Your task to perform on an android device: change notification settings in the gmail app Image 0: 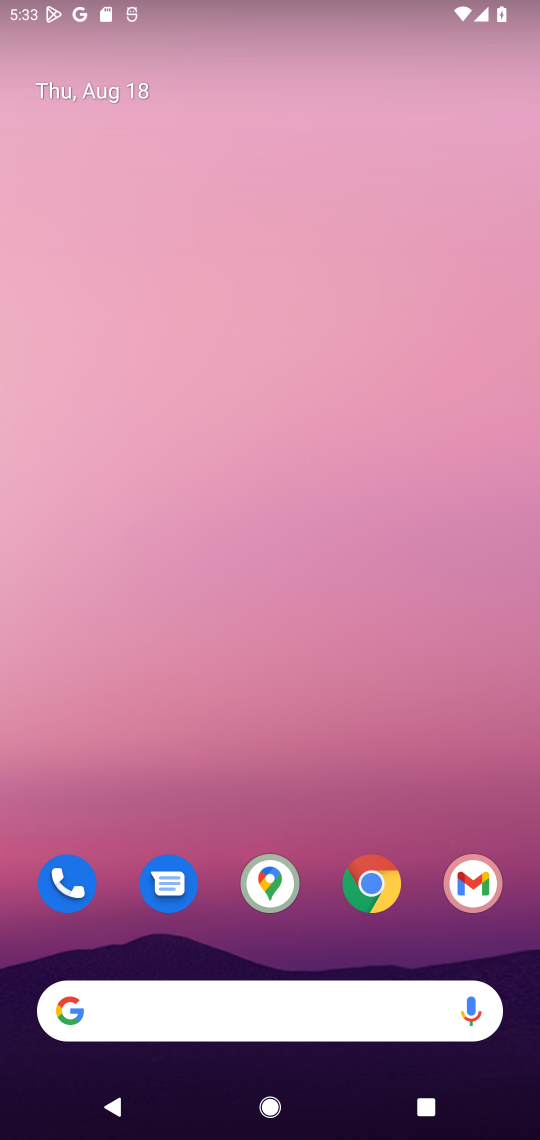
Step 0: drag from (335, 929) to (512, 684)
Your task to perform on an android device: change notification settings in the gmail app Image 1: 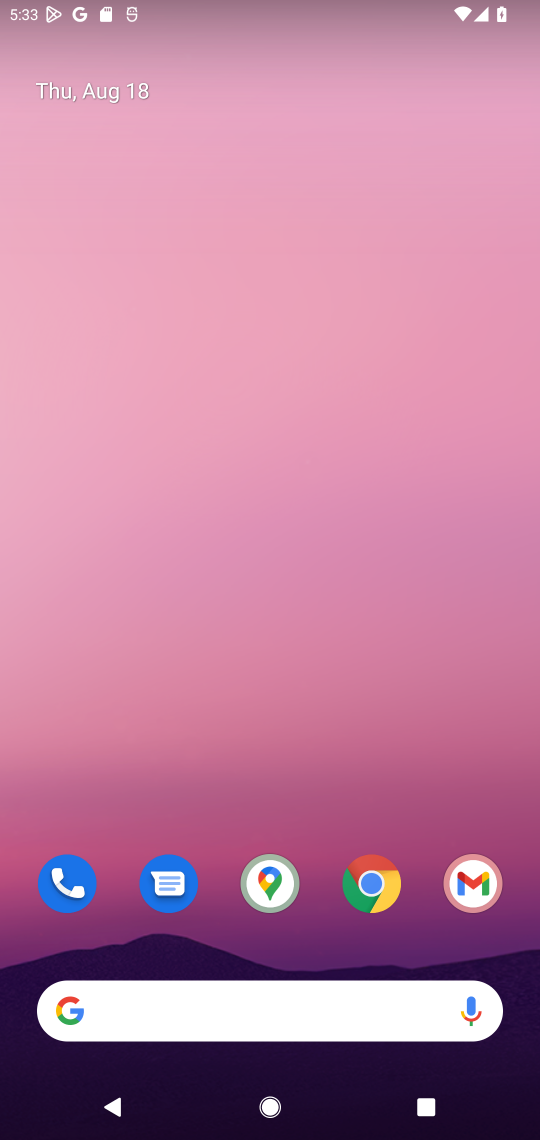
Step 1: drag from (362, 935) to (272, 21)
Your task to perform on an android device: change notification settings in the gmail app Image 2: 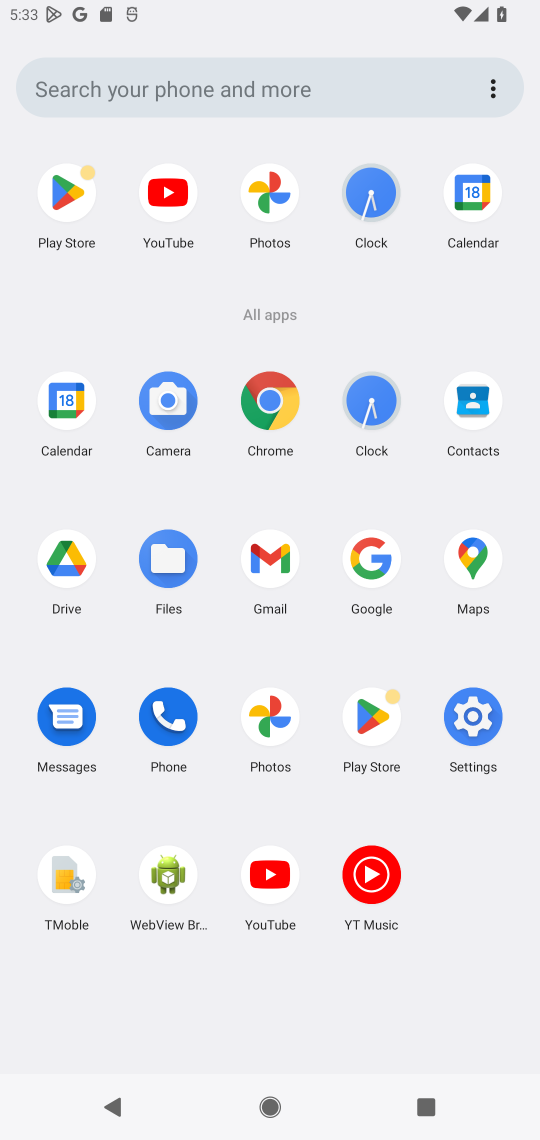
Step 2: click (270, 559)
Your task to perform on an android device: change notification settings in the gmail app Image 3: 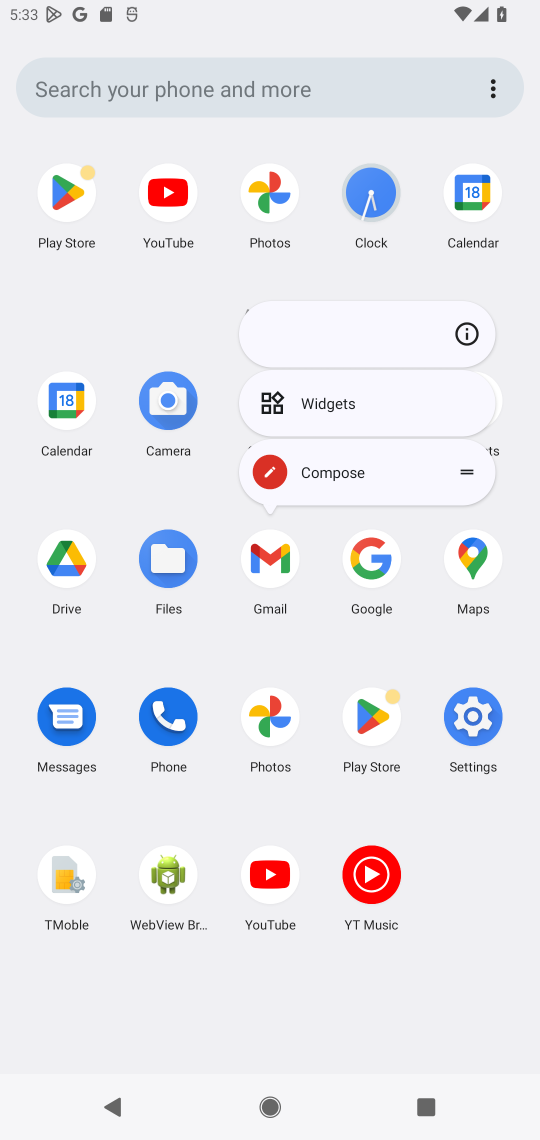
Step 3: click (466, 333)
Your task to perform on an android device: change notification settings in the gmail app Image 4: 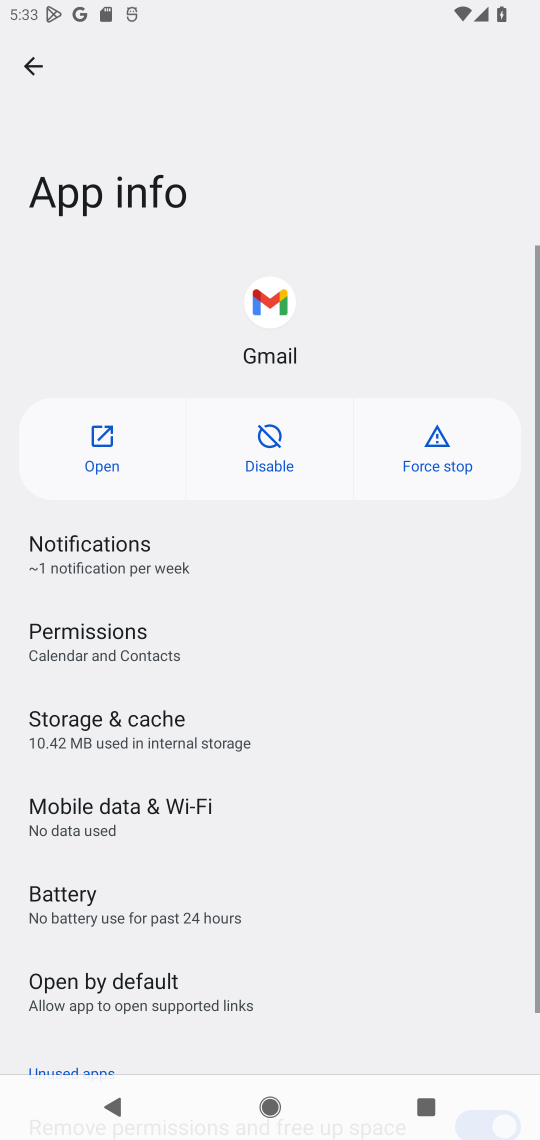
Step 4: click (165, 559)
Your task to perform on an android device: change notification settings in the gmail app Image 5: 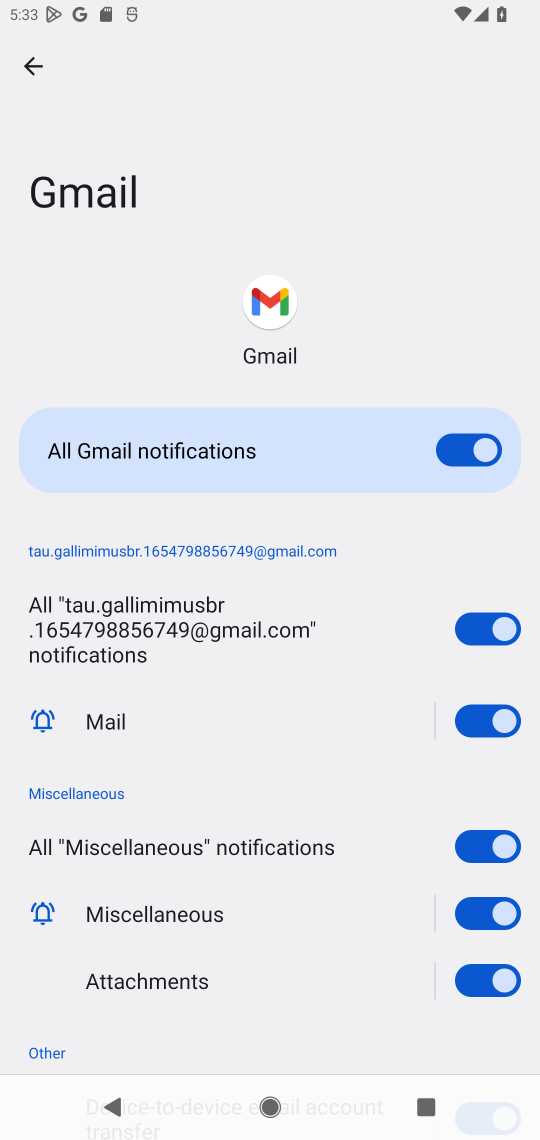
Step 5: drag from (215, 937) to (224, 350)
Your task to perform on an android device: change notification settings in the gmail app Image 6: 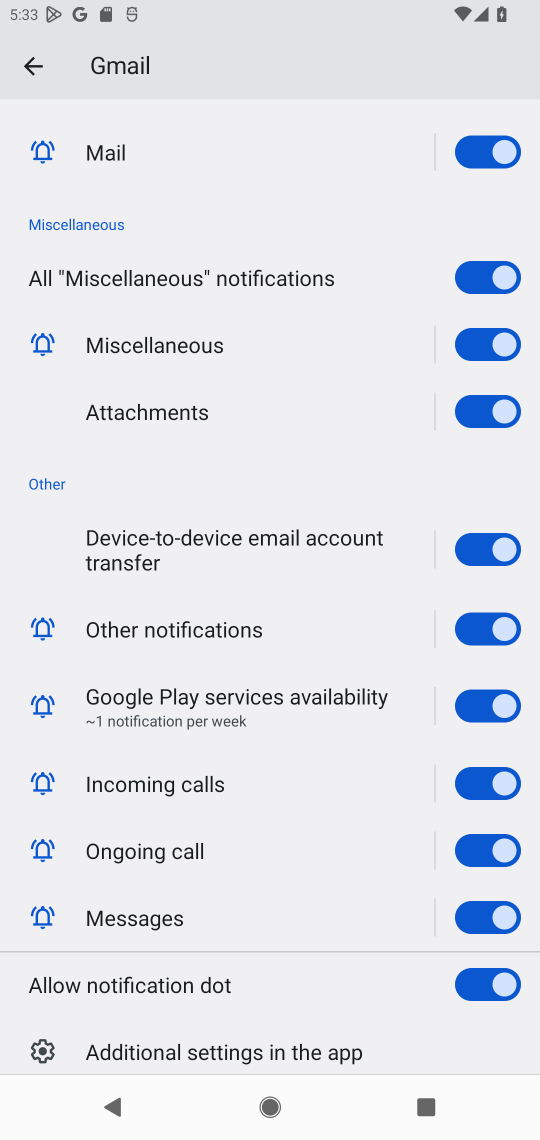
Step 6: drag from (226, 356) to (229, 758)
Your task to perform on an android device: change notification settings in the gmail app Image 7: 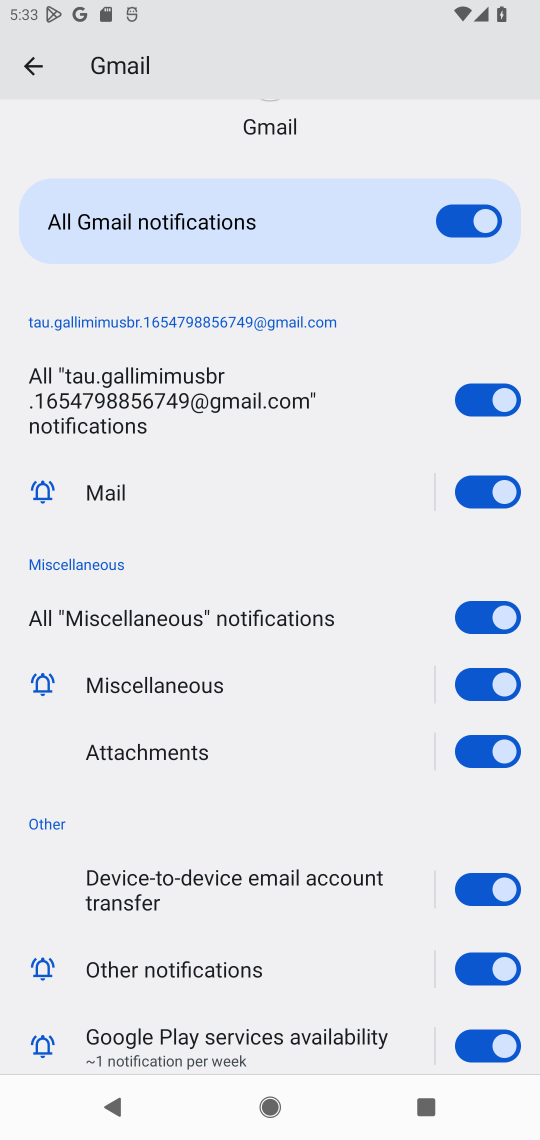
Step 7: click (463, 389)
Your task to perform on an android device: change notification settings in the gmail app Image 8: 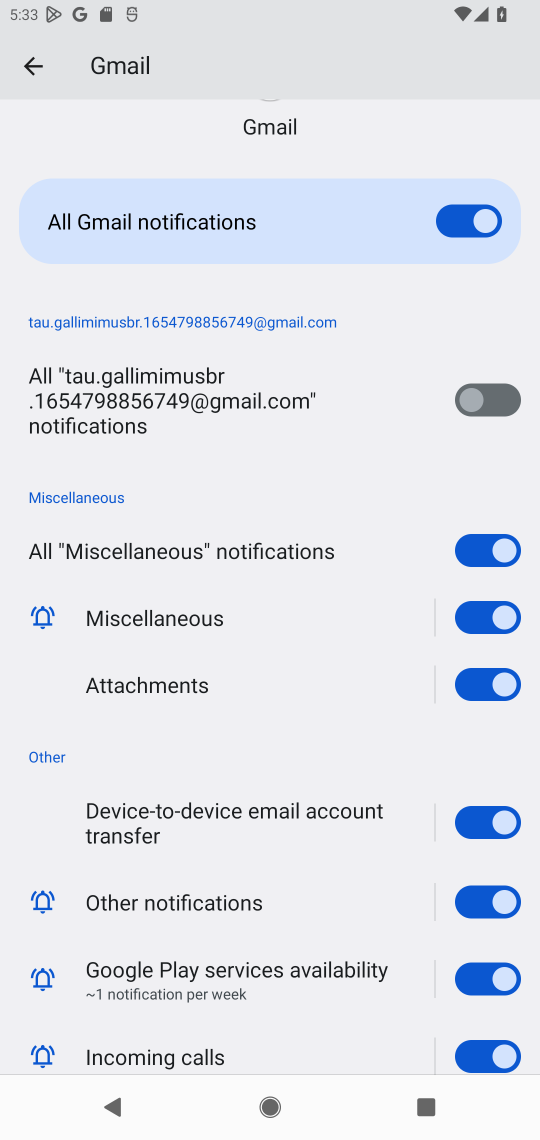
Step 8: task complete